Your task to perform on an android device: Open Google Maps and go to "Timeline" Image 0: 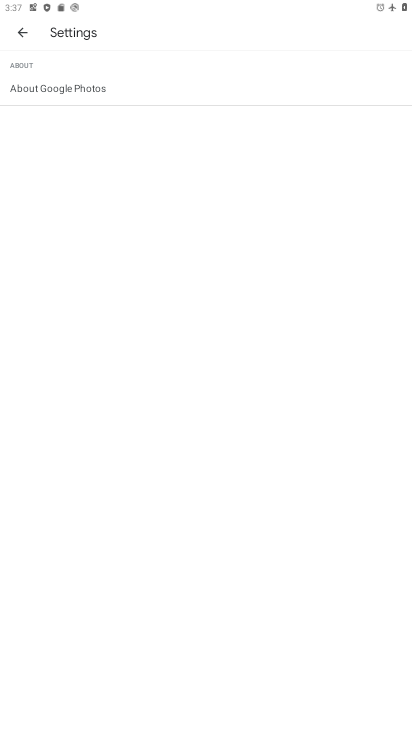
Step 0: click (24, 25)
Your task to perform on an android device: Open Google Maps and go to "Timeline" Image 1: 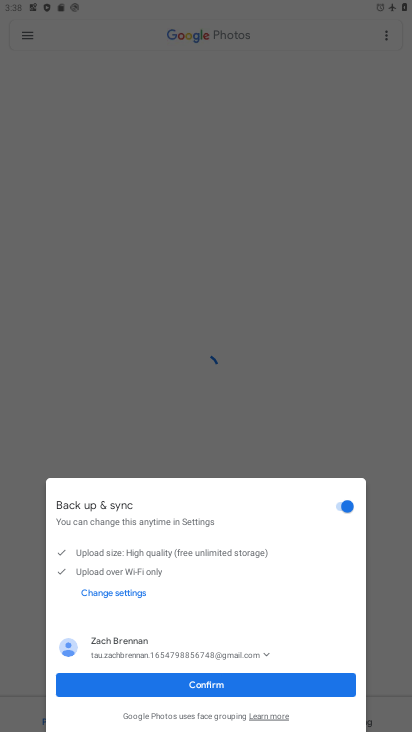
Step 1: press back button
Your task to perform on an android device: Open Google Maps and go to "Timeline" Image 2: 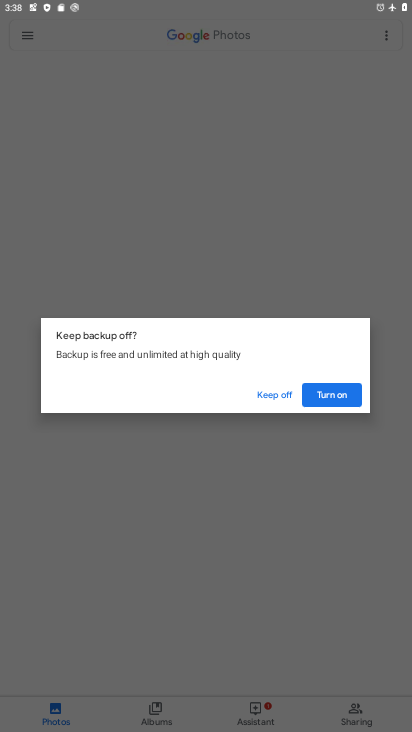
Step 2: press back button
Your task to perform on an android device: Open Google Maps and go to "Timeline" Image 3: 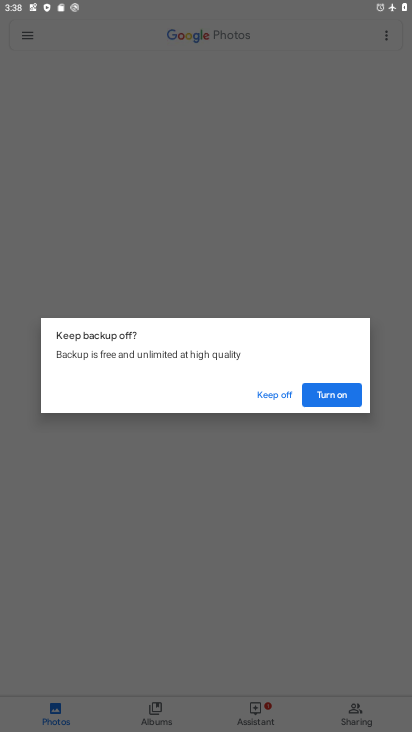
Step 3: press home button
Your task to perform on an android device: Open Google Maps and go to "Timeline" Image 4: 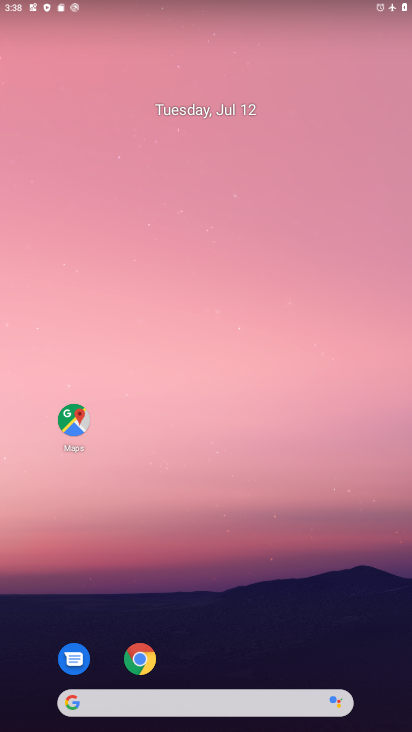
Step 4: drag from (197, 572) to (213, 59)
Your task to perform on an android device: Open Google Maps and go to "Timeline" Image 5: 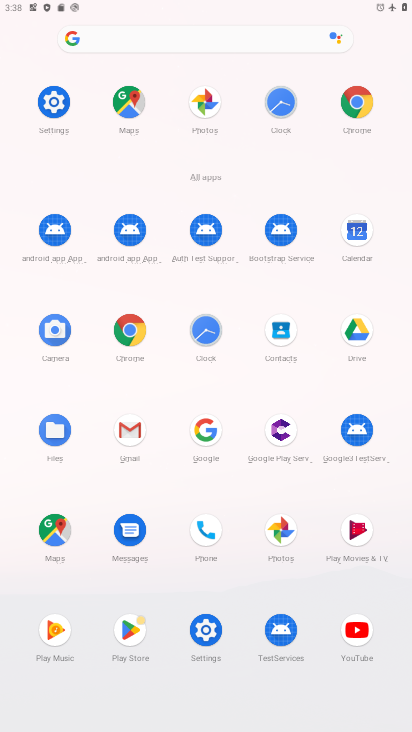
Step 5: click (127, 114)
Your task to perform on an android device: Open Google Maps and go to "Timeline" Image 6: 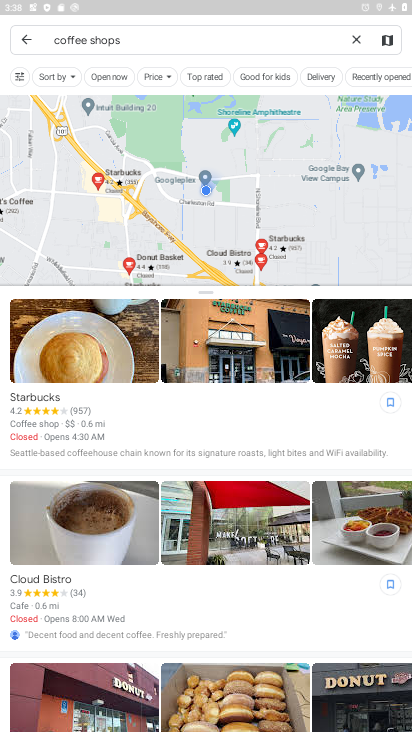
Step 6: click (23, 40)
Your task to perform on an android device: Open Google Maps and go to "Timeline" Image 7: 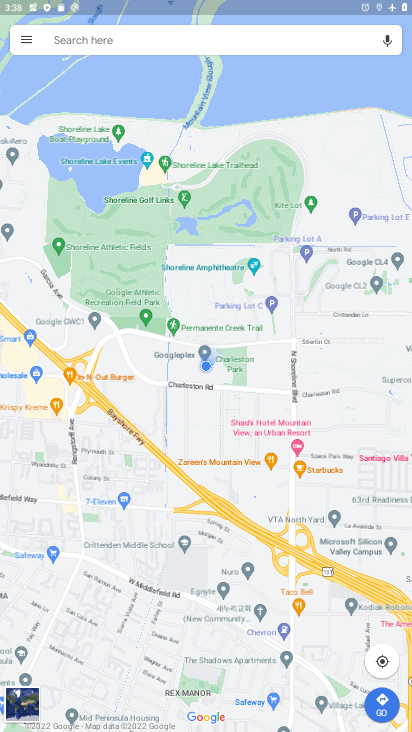
Step 7: click (23, 40)
Your task to perform on an android device: Open Google Maps and go to "Timeline" Image 8: 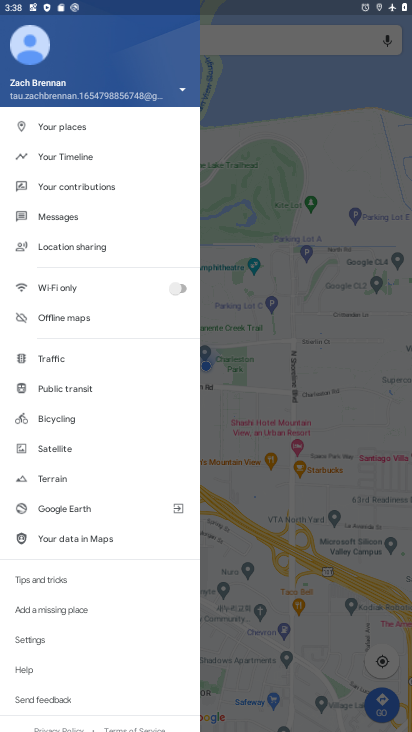
Step 8: click (63, 156)
Your task to perform on an android device: Open Google Maps and go to "Timeline" Image 9: 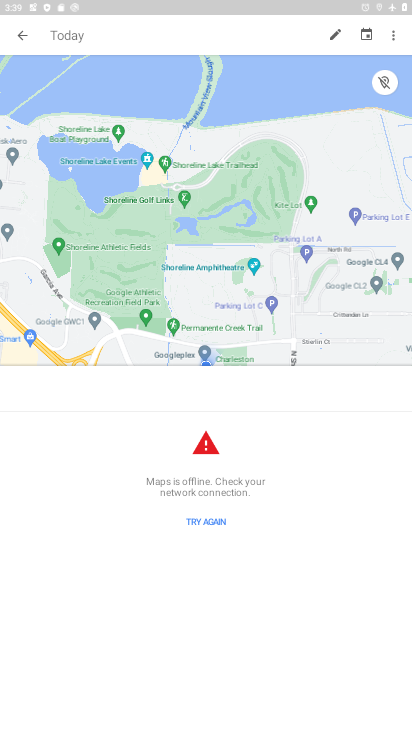
Step 9: task complete